Your task to perform on an android device: clear history in the chrome app Image 0: 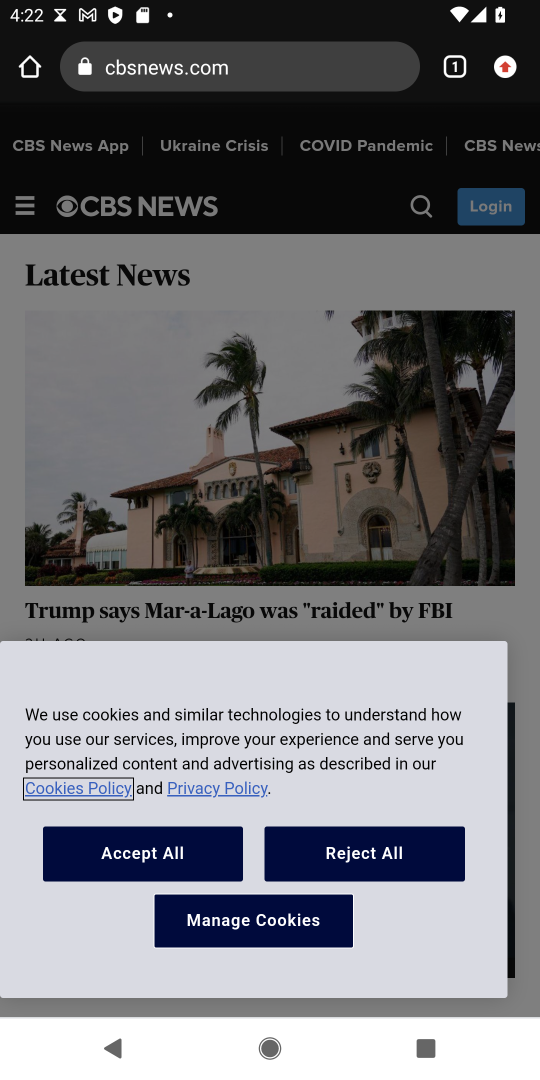
Step 0: click (508, 73)
Your task to perform on an android device: clear history in the chrome app Image 1: 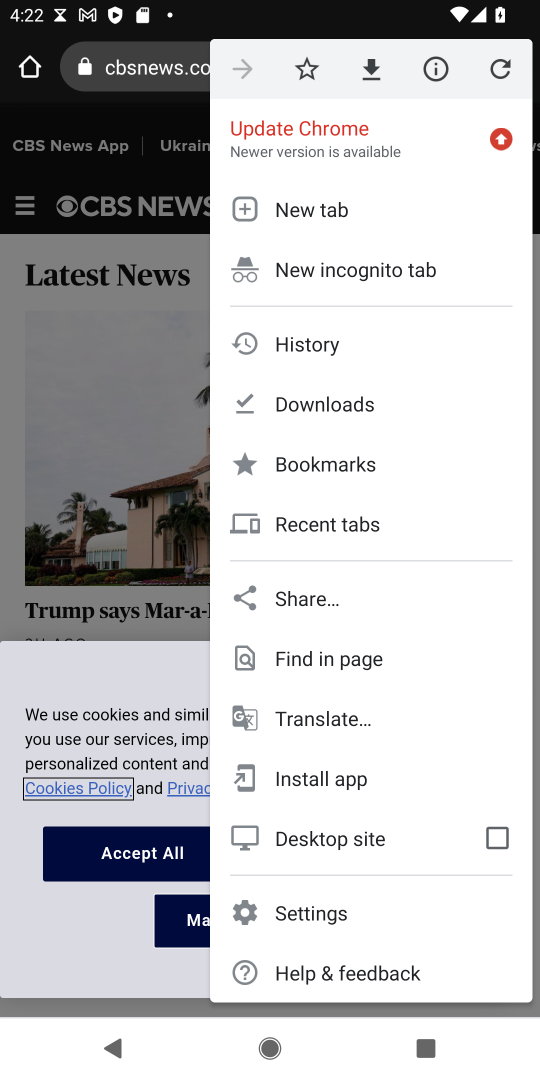
Step 1: click (238, 352)
Your task to perform on an android device: clear history in the chrome app Image 2: 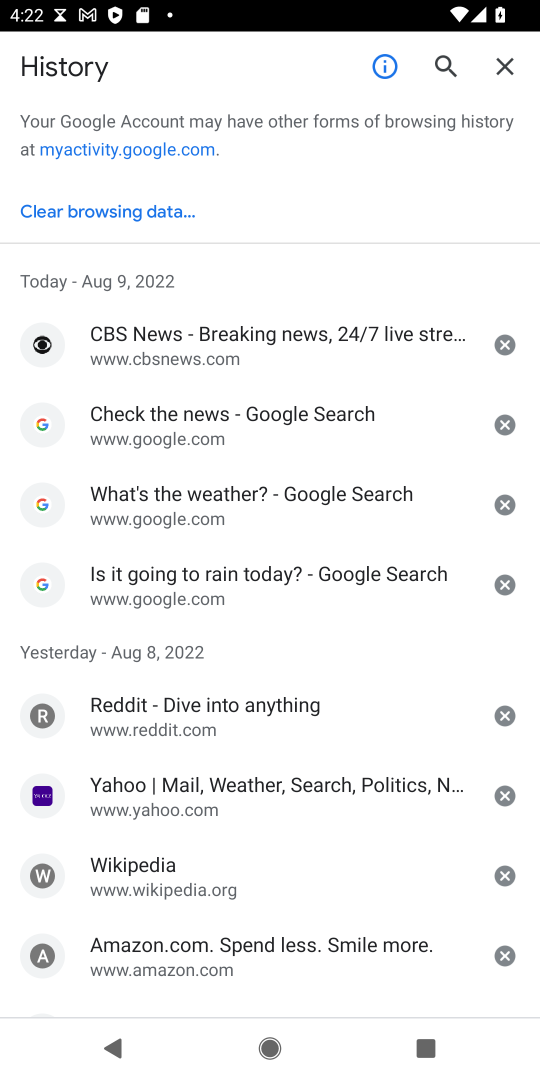
Step 2: click (120, 224)
Your task to perform on an android device: clear history in the chrome app Image 3: 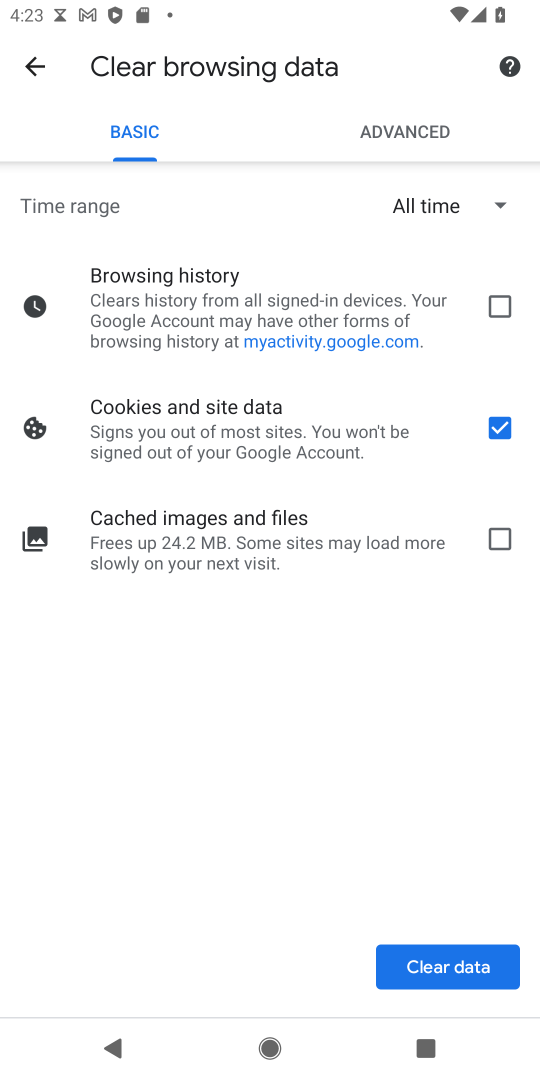
Step 3: click (495, 422)
Your task to perform on an android device: clear history in the chrome app Image 4: 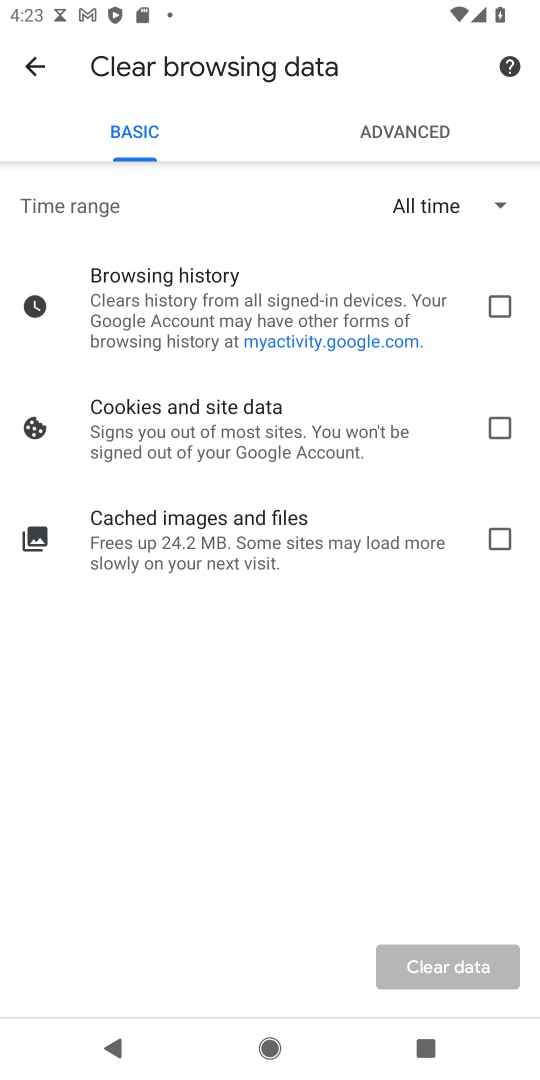
Step 4: click (495, 315)
Your task to perform on an android device: clear history in the chrome app Image 5: 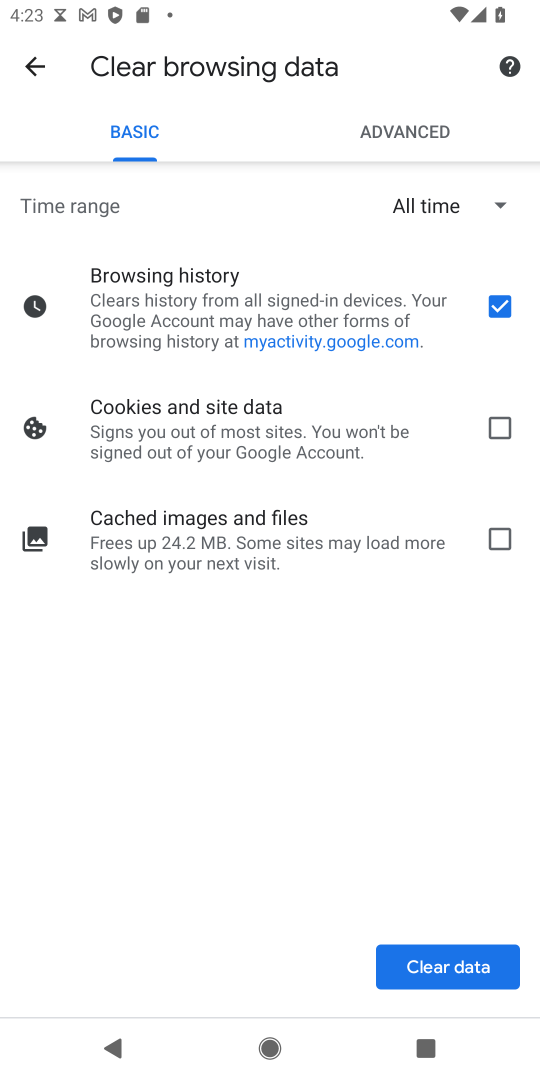
Step 5: click (482, 967)
Your task to perform on an android device: clear history in the chrome app Image 6: 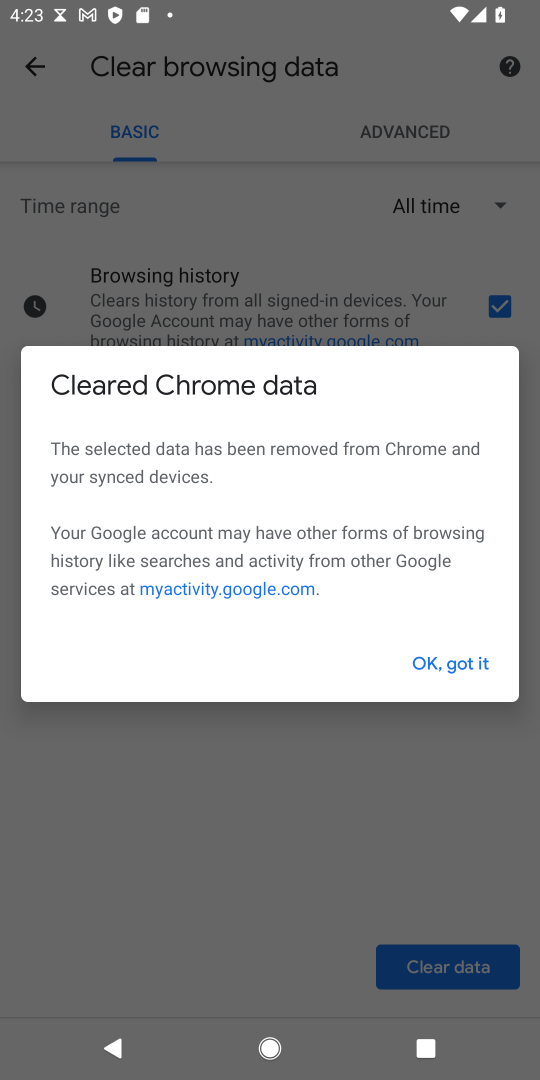
Step 6: click (462, 678)
Your task to perform on an android device: clear history in the chrome app Image 7: 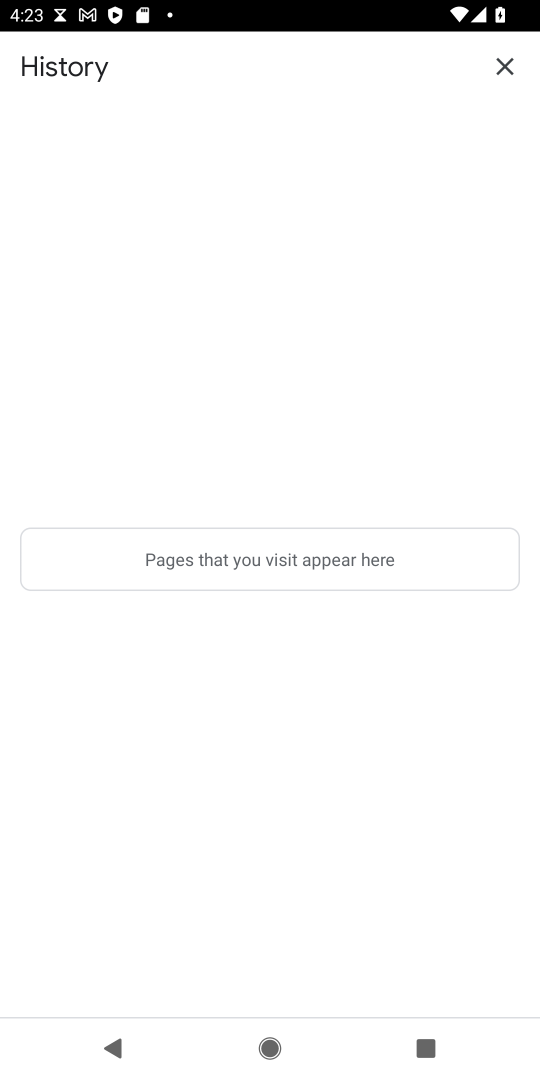
Step 7: task complete